Your task to perform on an android device: allow notifications from all sites in the chrome app Image 0: 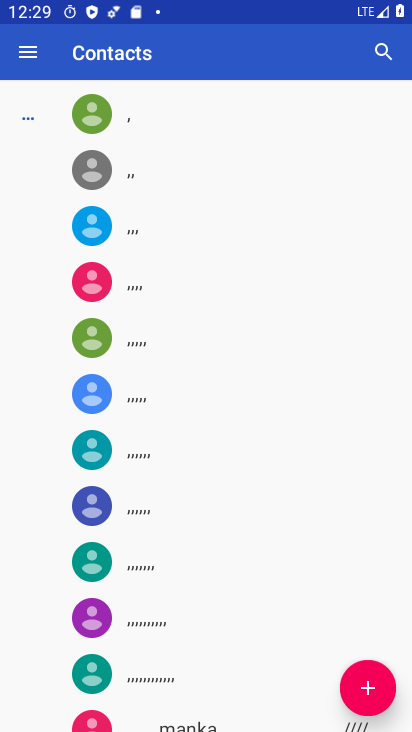
Step 0: press back button
Your task to perform on an android device: allow notifications from all sites in the chrome app Image 1: 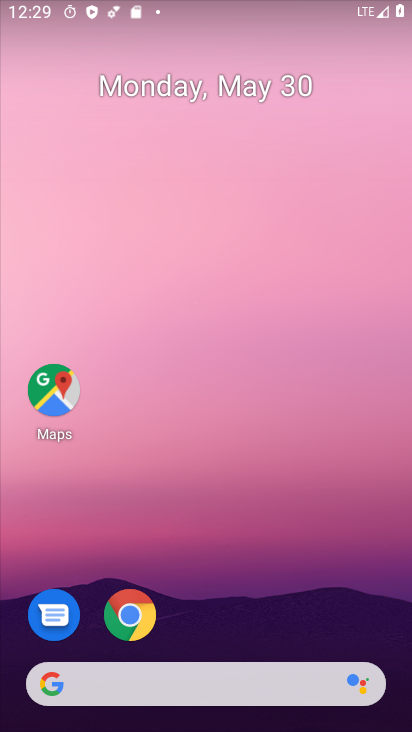
Step 1: click (141, 612)
Your task to perform on an android device: allow notifications from all sites in the chrome app Image 2: 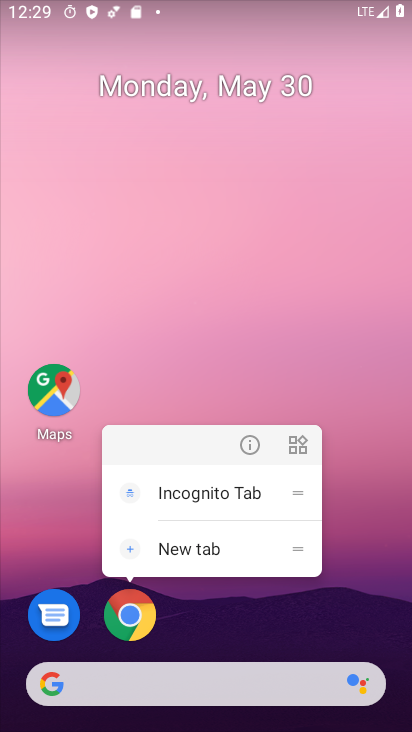
Step 2: click (122, 613)
Your task to perform on an android device: allow notifications from all sites in the chrome app Image 3: 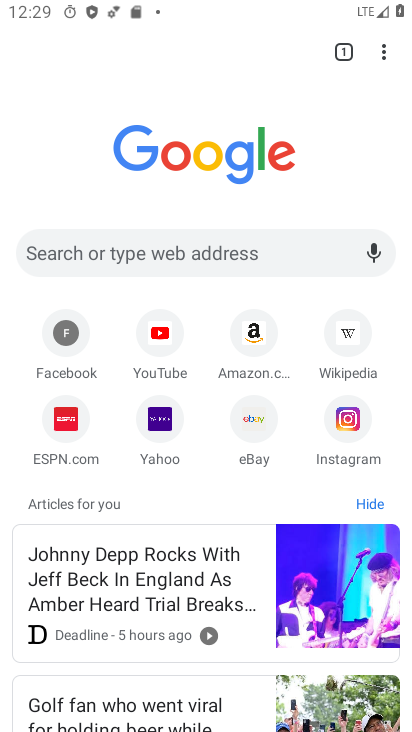
Step 3: drag from (384, 44) to (199, 436)
Your task to perform on an android device: allow notifications from all sites in the chrome app Image 4: 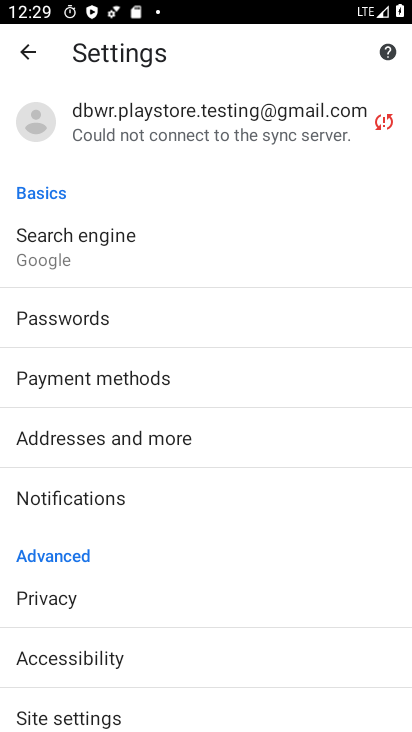
Step 4: click (90, 711)
Your task to perform on an android device: allow notifications from all sites in the chrome app Image 5: 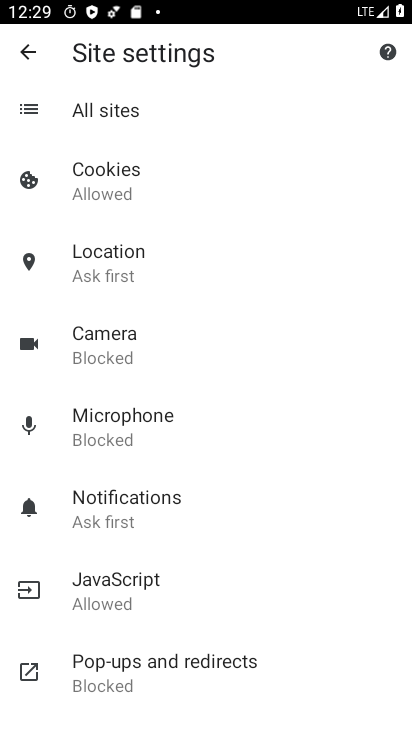
Step 5: click (113, 506)
Your task to perform on an android device: allow notifications from all sites in the chrome app Image 6: 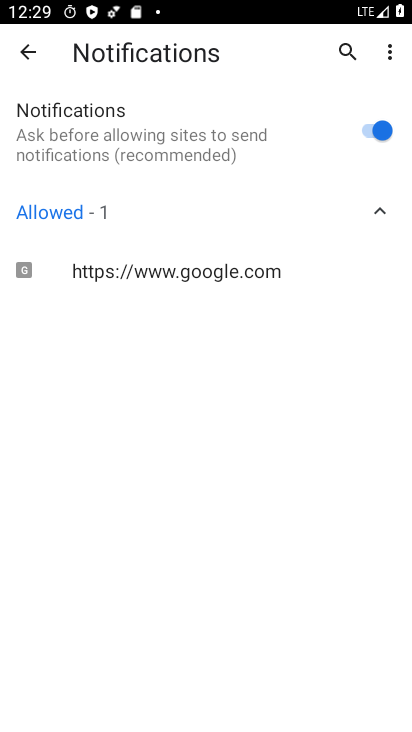
Step 6: task complete